Your task to perform on an android device: Go to Maps Image 0: 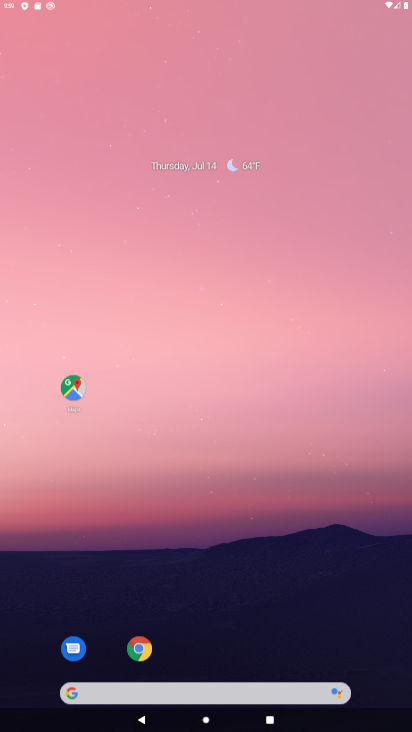
Step 0: click (279, 93)
Your task to perform on an android device: Go to Maps Image 1: 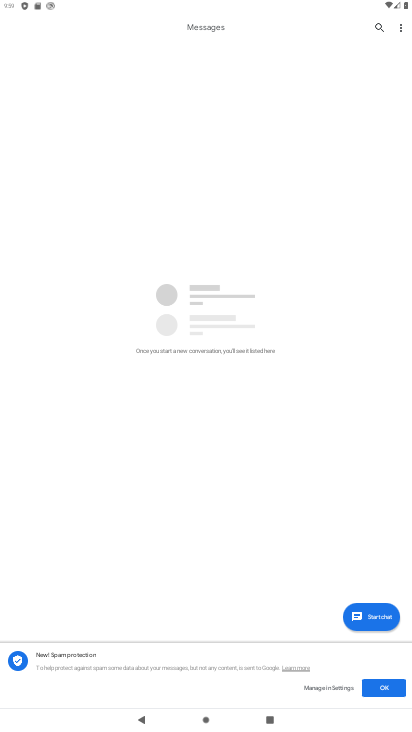
Step 1: press home button
Your task to perform on an android device: Go to Maps Image 2: 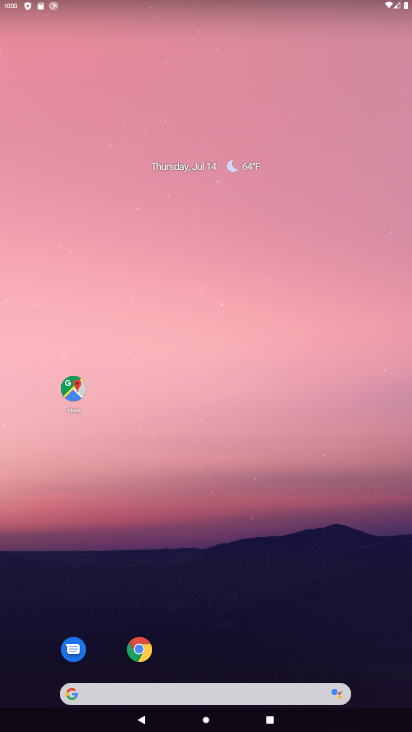
Step 2: drag from (206, 642) to (259, 67)
Your task to perform on an android device: Go to Maps Image 3: 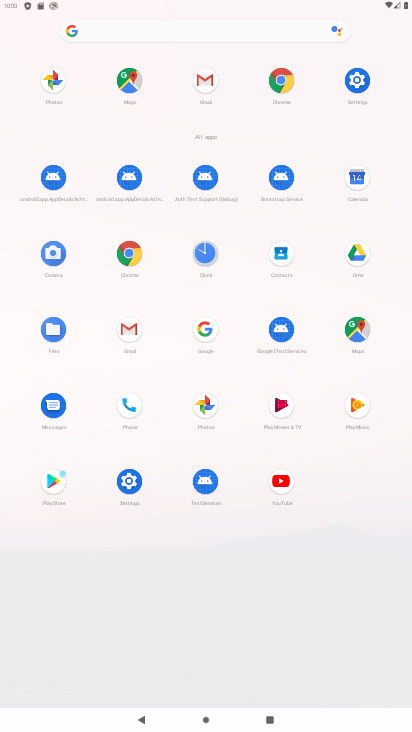
Step 3: click (366, 329)
Your task to perform on an android device: Go to Maps Image 4: 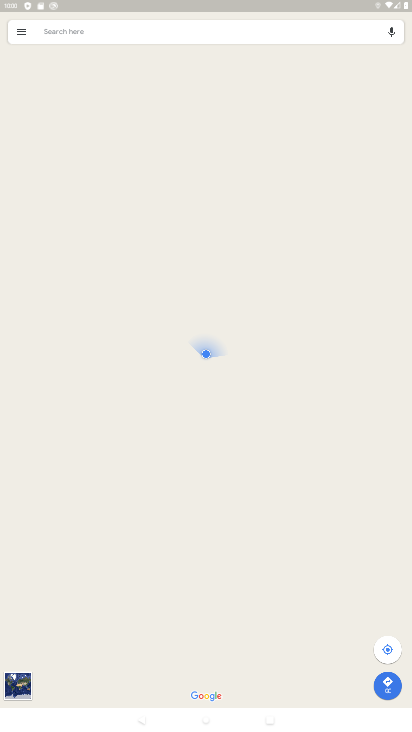
Step 4: task complete